Your task to perform on an android device: stop showing notifications on the lock screen Image 0: 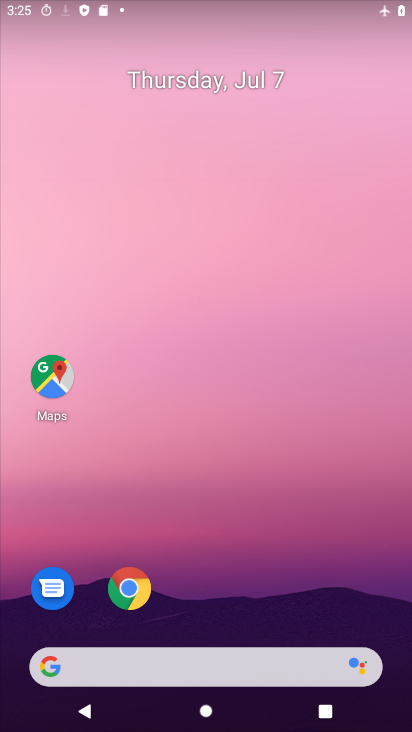
Step 0: drag from (237, 536) to (221, 332)
Your task to perform on an android device: stop showing notifications on the lock screen Image 1: 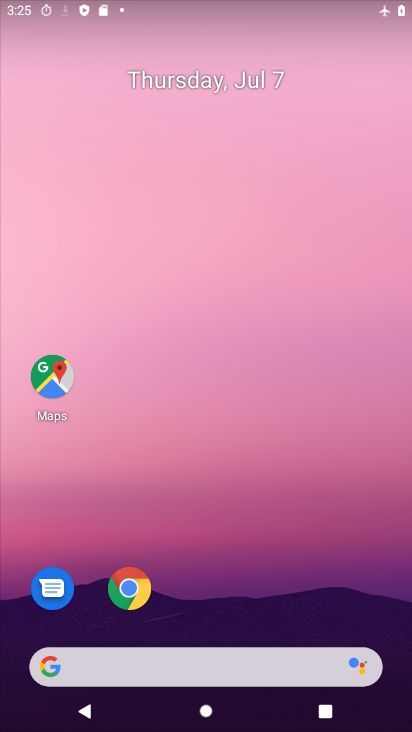
Step 1: drag from (303, 407) to (236, 26)
Your task to perform on an android device: stop showing notifications on the lock screen Image 2: 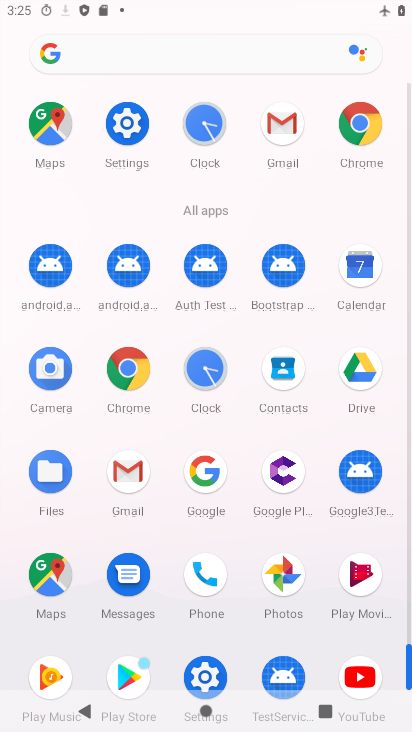
Step 2: click (54, 479)
Your task to perform on an android device: stop showing notifications on the lock screen Image 3: 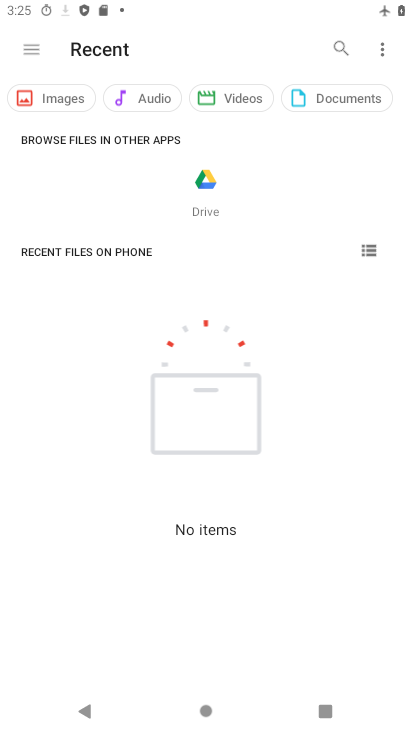
Step 3: press back button
Your task to perform on an android device: stop showing notifications on the lock screen Image 4: 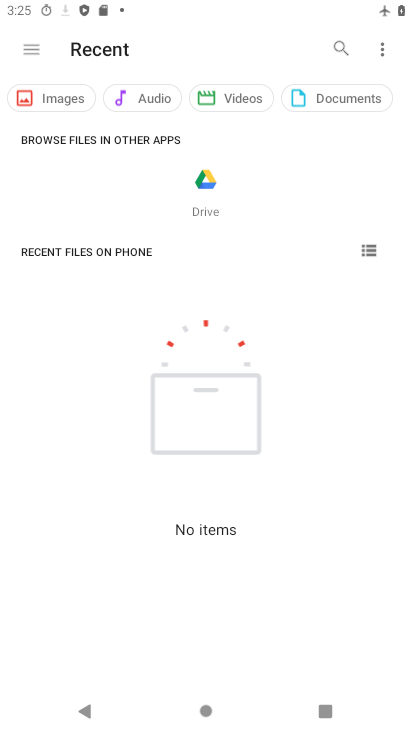
Step 4: press back button
Your task to perform on an android device: stop showing notifications on the lock screen Image 5: 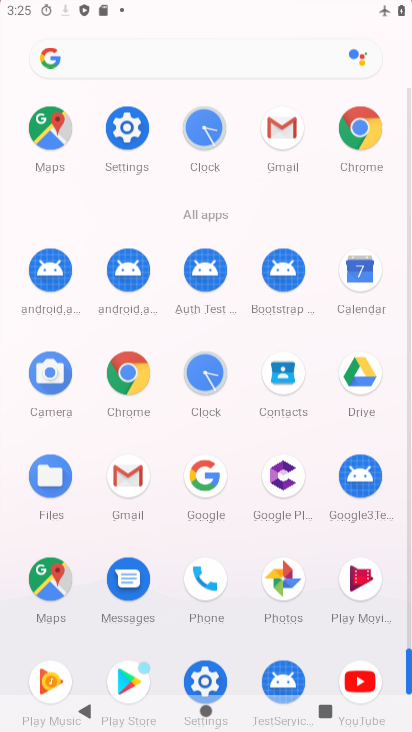
Step 5: press back button
Your task to perform on an android device: stop showing notifications on the lock screen Image 6: 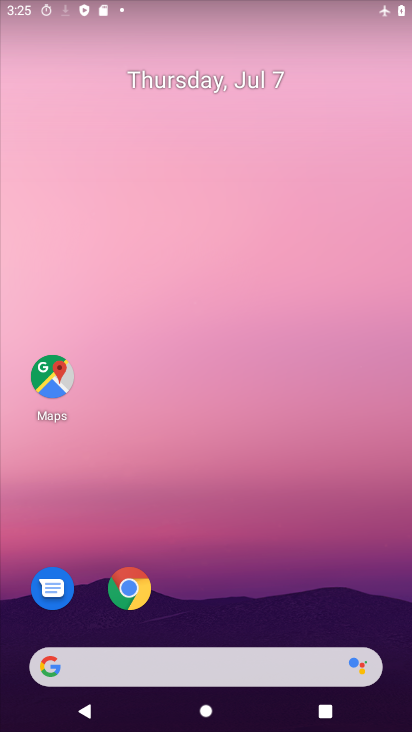
Step 6: drag from (233, 677) to (124, 47)
Your task to perform on an android device: stop showing notifications on the lock screen Image 7: 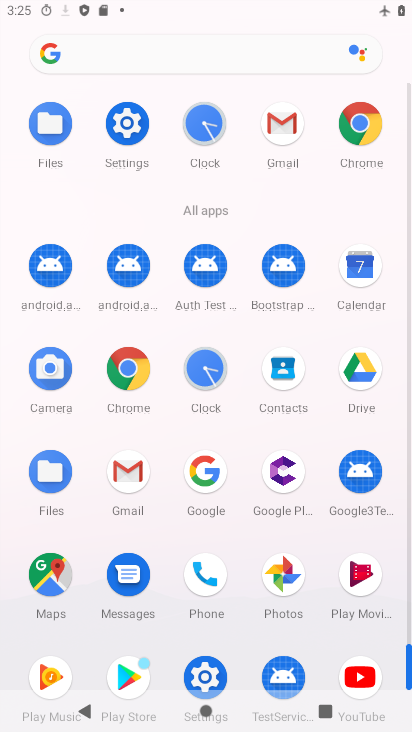
Step 7: click (132, 120)
Your task to perform on an android device: stop showing notifications on the lock screen Image 8: 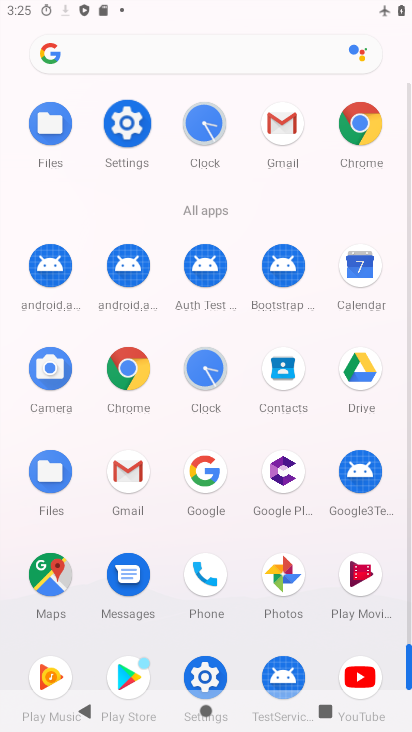
Step 8: click (133, 121)
Your task to perform on an android device: stop showing notifications on the lock screen Image 9: 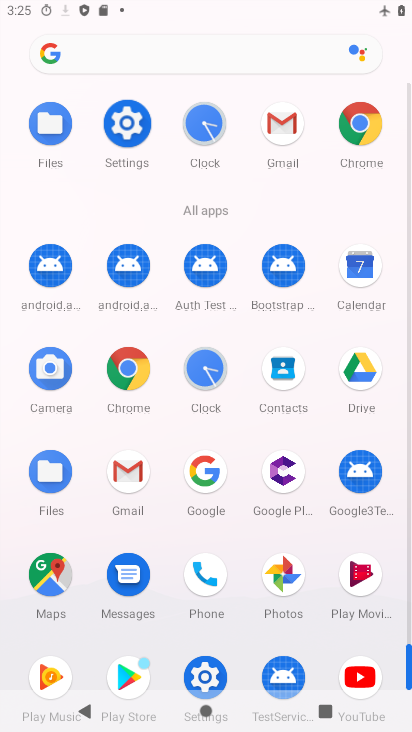
Step 9: click (133, 121)
Your task to perform on an android device: stop showing notifications on the lock screen Image 10: 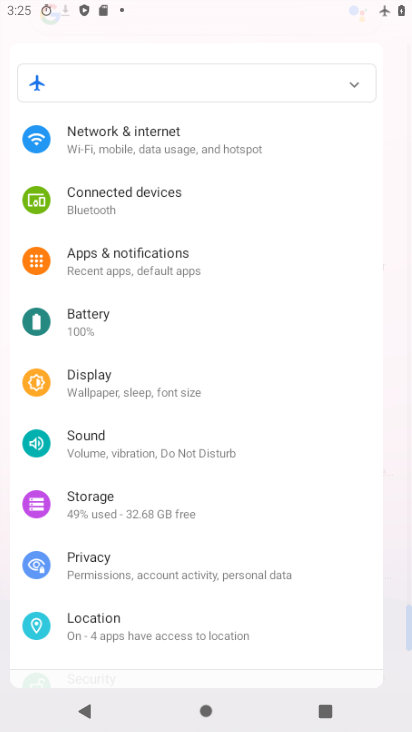
Step 10: click (133, 121)
Your task to perform on an android device: stop showing notifications on the lock screen Image 11: 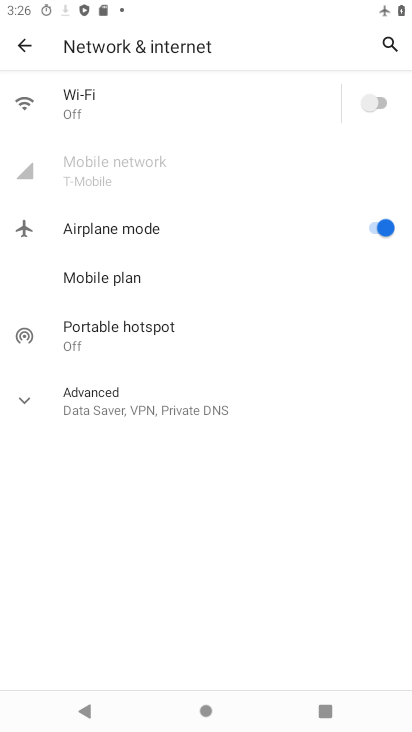
Step 11: click (8, 36)
Your task to perform on an android device: stop showing notifications on the lock screen Image 12: 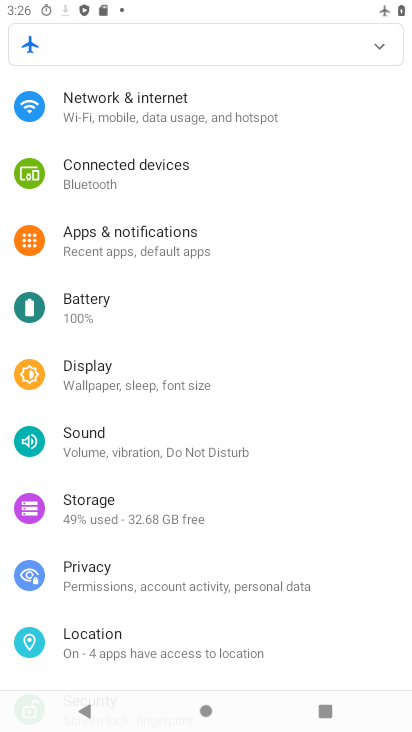
Step 12: click (138, 238)
Your task to perform on an android device: stop showing notifications on the lock screen Image 13: 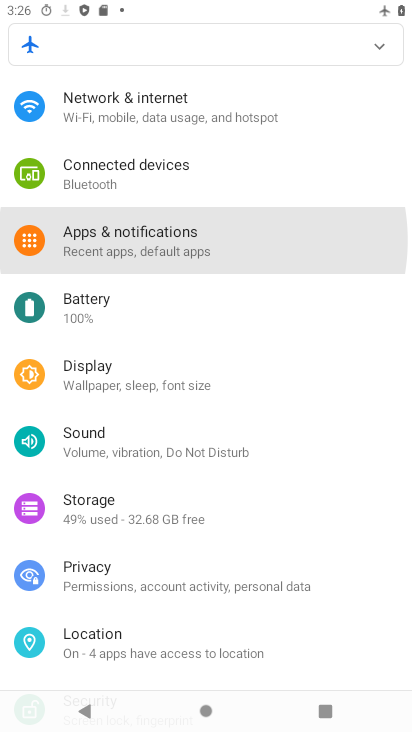
Step 13: click (142, 242)
Your task to perform on an android device: stop showing notifications on the lock screen Image 14: 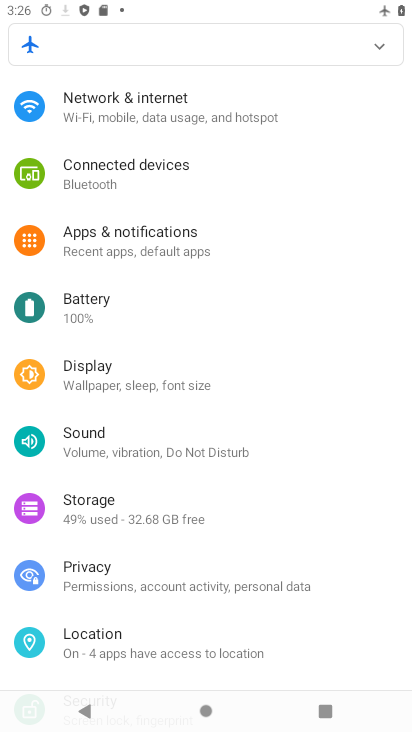
Step 14: click (142, 242)
Your task to perform on an android device: stop showing notifications on the lock screen Image 15: 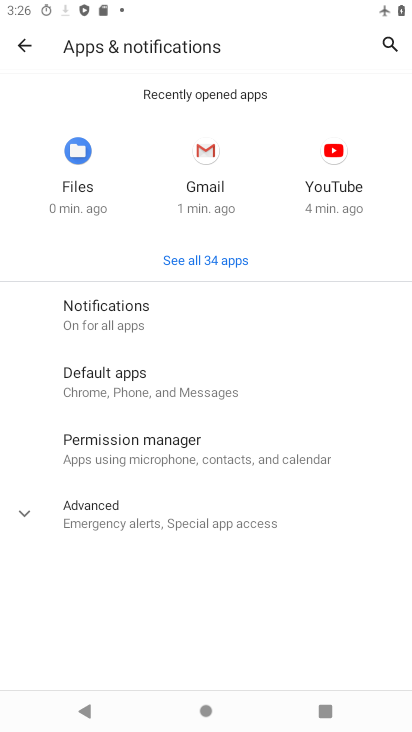
Step 15: click (140, 226)
Your task to perform on an android device: stop showing notifications on the lock screen Image 16: 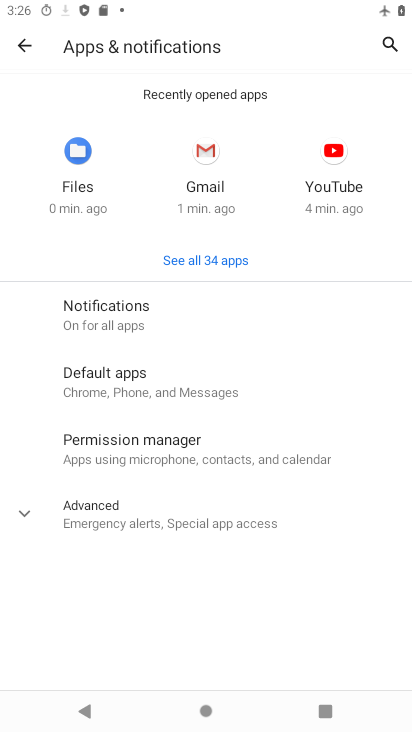
Step 16: click (114, 318)
Your task to perform on an android device: stop showing notifications on the lock screen Image 17: 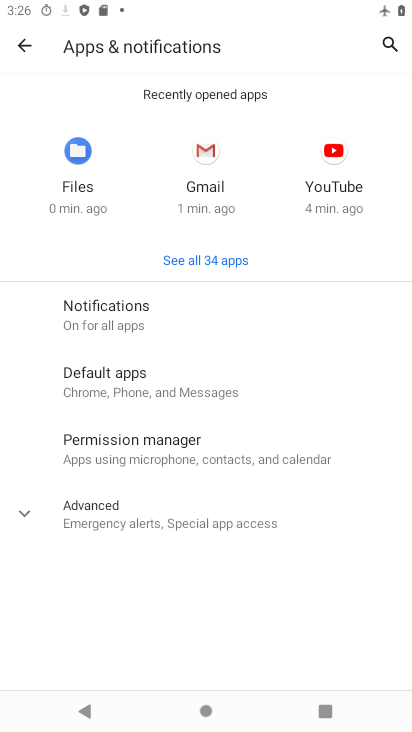
Step 17: click (112, 315)
Your task to perform on an android device: stop showing notifications on the lock screen Image 18: 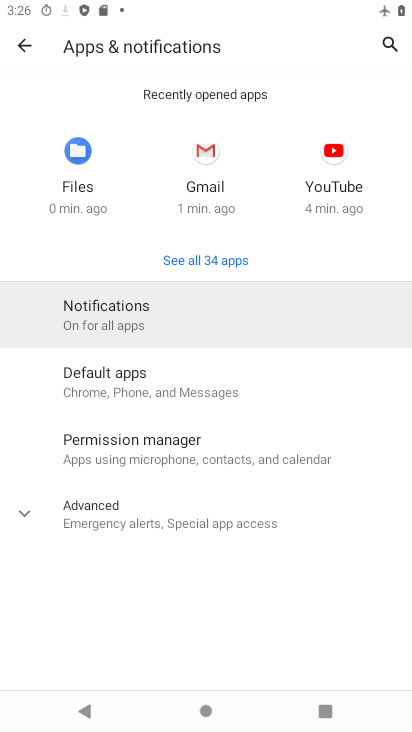
Step 18: click (122, 315)
Your task to perform on an android device: stop showing notifications on the lock screen Image 19: 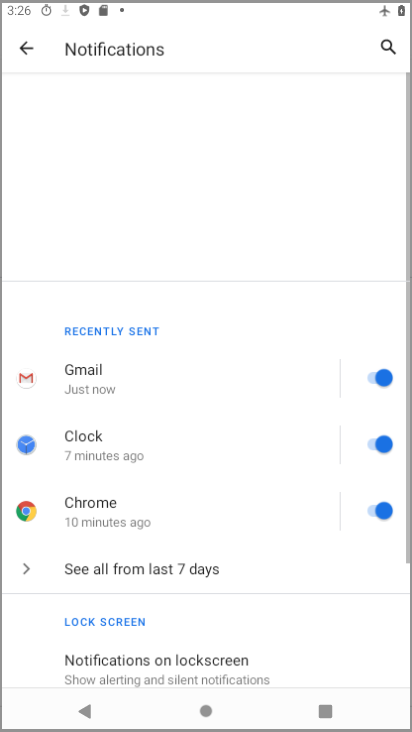
Step 19: click (119, 309)
Your task to perform on an android device: stop showing notifications on the lock screen Image 20: 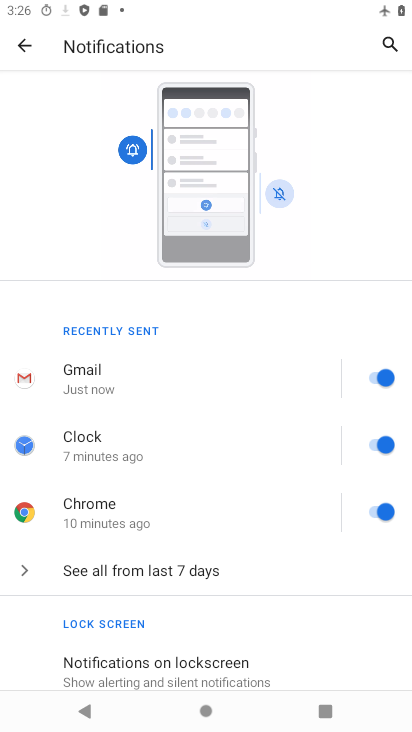
Step 20: drag from (203, 652) to (222, 250)
Your task to perform on an android device: stop showing notifications on the lock screen Image 21: 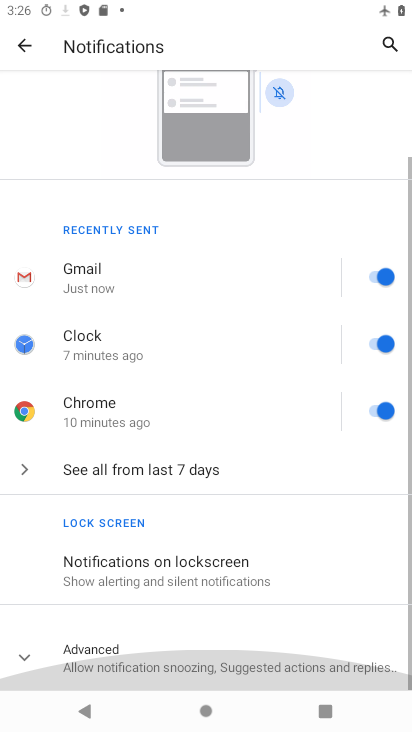
Step 21: drag from (273, 611) to (194, 217)
Your task to perform on an android device: stop showing notifications on the lock screen Image 22: 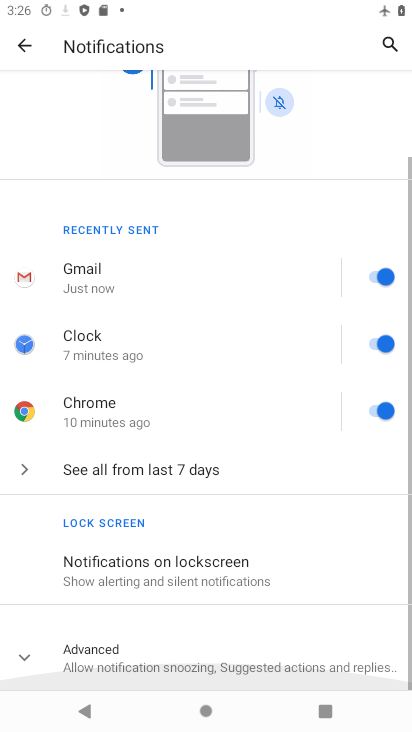
Step 22: drag from (263, 582) to (258, 336)
Your task to perform on an android device: stop showing notifications on the lock screen Image 23: 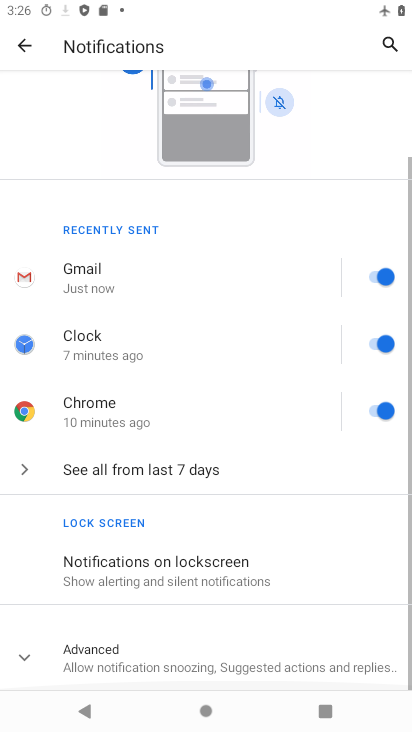
Step 23: click (96, 665)
Your task to perform on an android device: stop showing notifications on the lock screen Image 24: 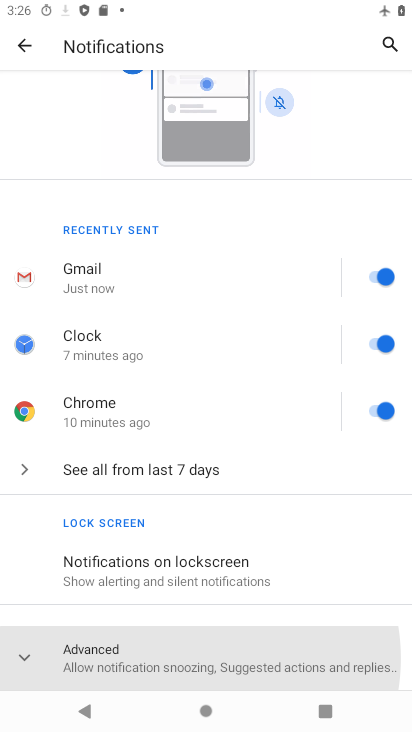
Step 24: click (98, 662)
Your task to perform on an android device: stop showing notifications on the lock screen Image 25: 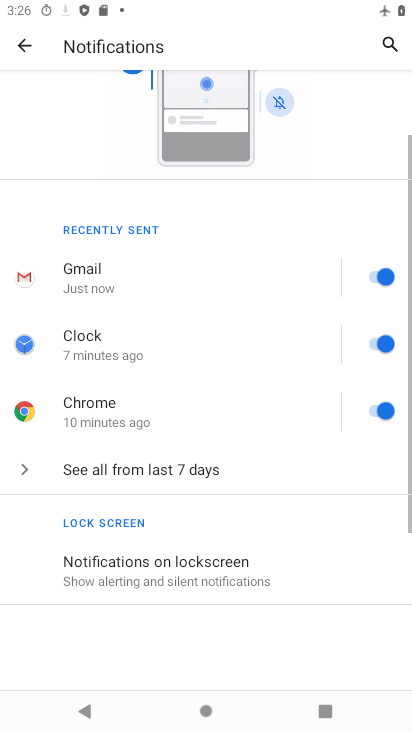
Step 25: click (100, 661)
Your task to perform on an android device: stop showing notifications on the lock screen Image 26: 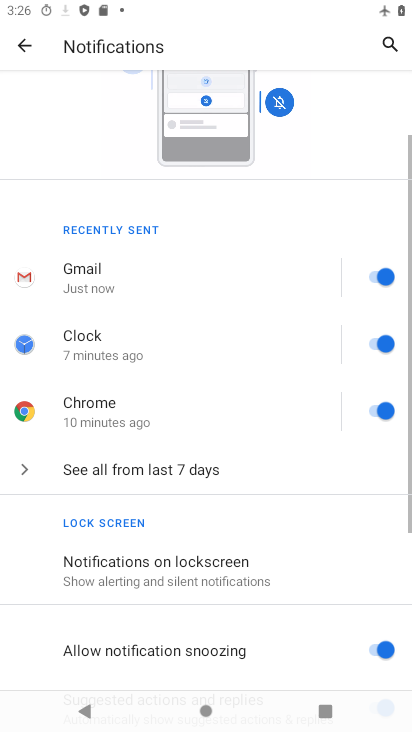
Step 26: drag from (226, 509) to (168, 130)
Your task to perform on an android device: stop showing notifications on the lock screen Image 27: 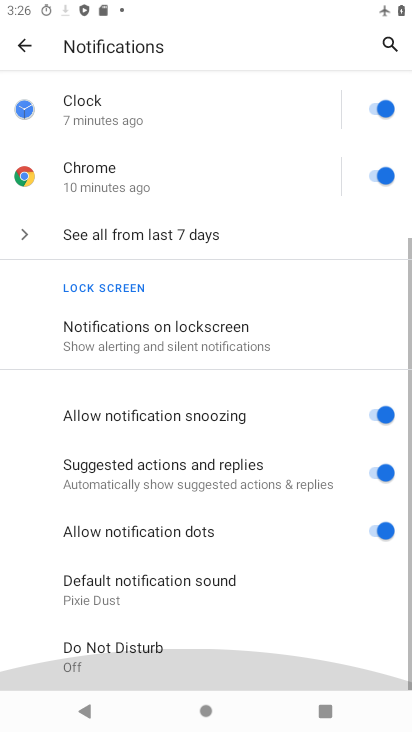
Step 27: drag from (264, 475) to (232, 174)
Your task to perform on an android device: stop showing notifications on the lock screen Image 28: 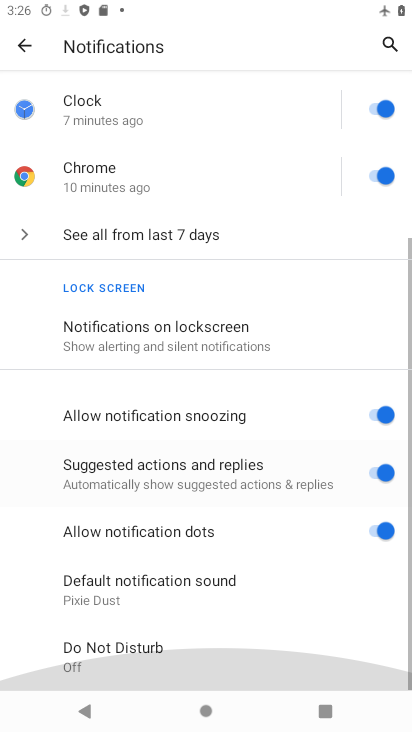
Step 28: drag from (240, 468) to (262, 278)
Your task to perform on an android device: stop showing notifications on the lock screen Image 29: 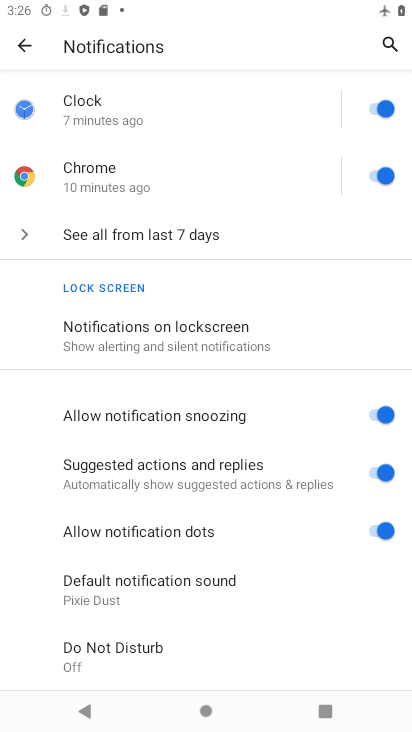
Step 29: click (187, 315)
Your task to perform on an android device: stop showing notifications on the lock screen Image 30: 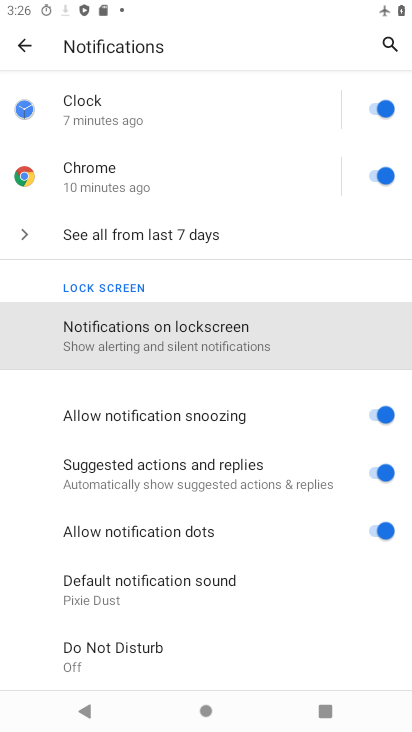
Step 30: click (187, 321)
Your task to perform on an android device: stop showing notifications on the lock screen Image 31: 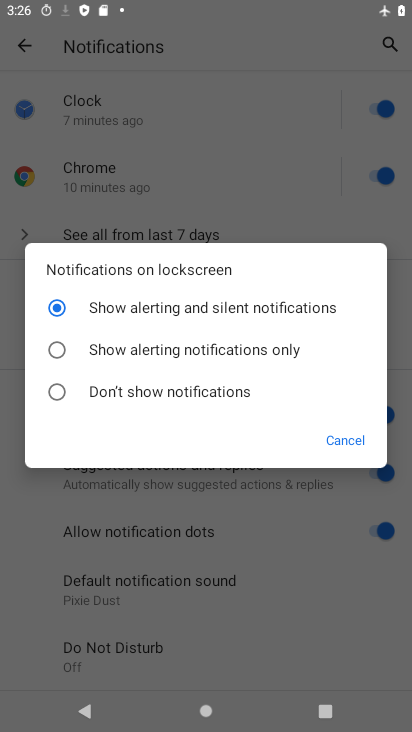
Step 31: click (50, 395)
Your task to perform on an android device: stop showing notifications on the lock screen Image 32: 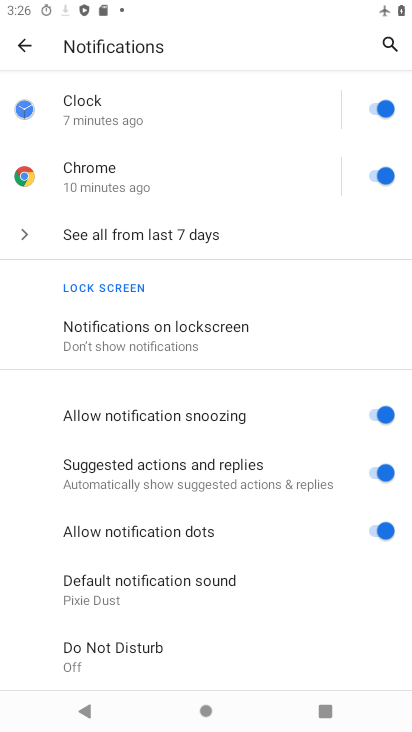
Step 32: task complete